Your task to perform on an android device: set default search engine in the chrome app Image 0: 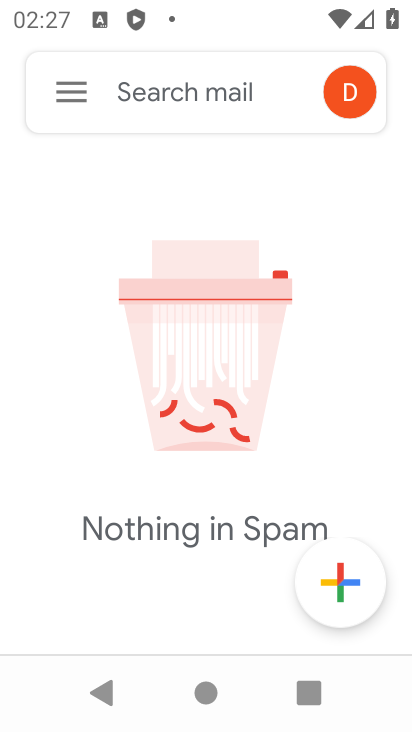
Step 0: press home button
Your task to perform on an android device: set default search engine in the chrome app Image 1: 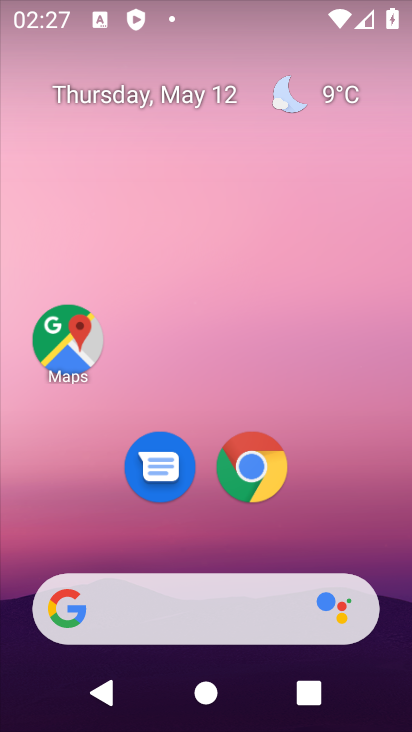
Step 1: drag from (306, 524) to (330, 181)
Your task to perform on an android device: set default search engine in the chrome app Image 2: 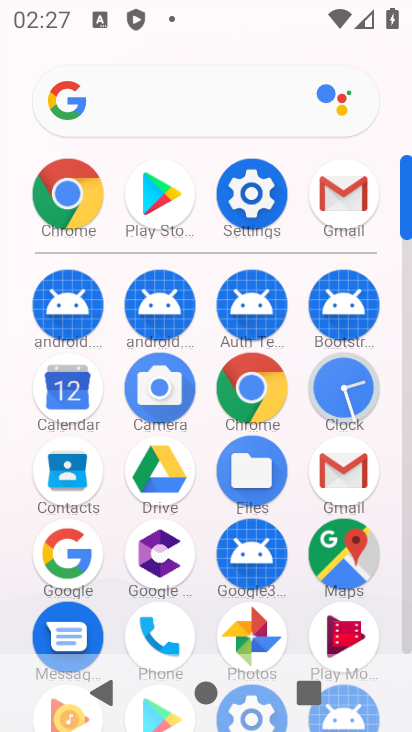
Step 2: click (69, 186)
Your task to perform on an android device: set default search engine in the chrome app Image 3: 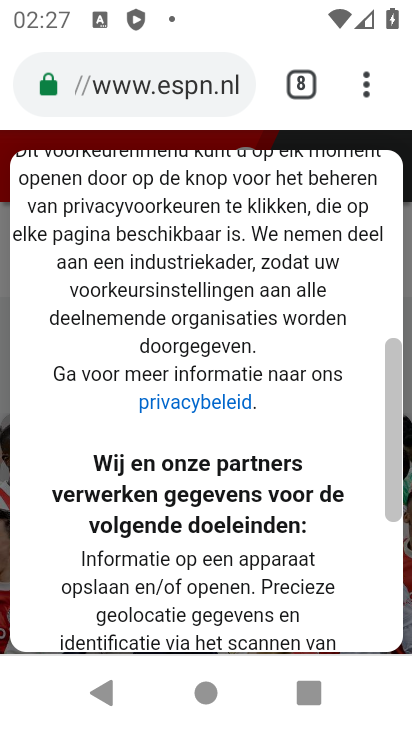
Step 3: drag from (243, 550) to (258, 330)
Your task to perform on an android device: set default search engine in the chrome app Image 4: 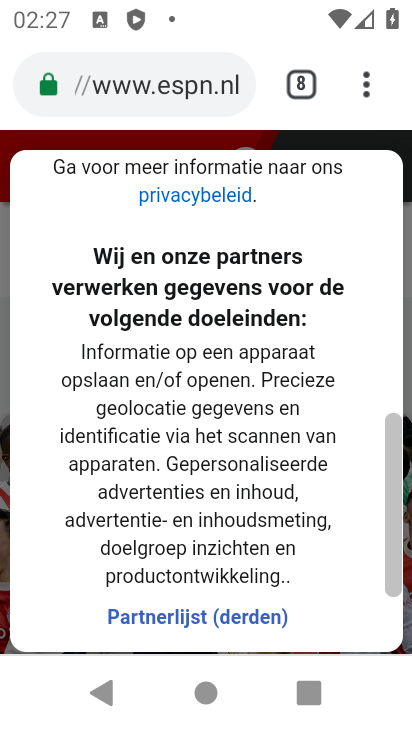
Step 4: click (343, 73)
Your task to perform on an android device: set default search engine in the chrome app Image 5: 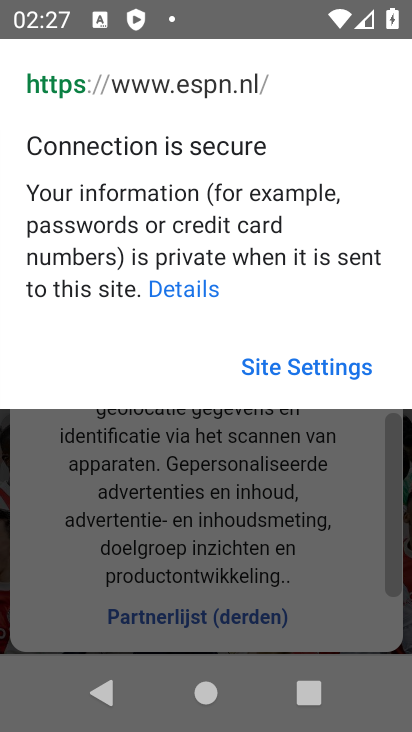
Step 5: press back button
Your task to perform on an android device: set default search engine in the chrome app Image 6: 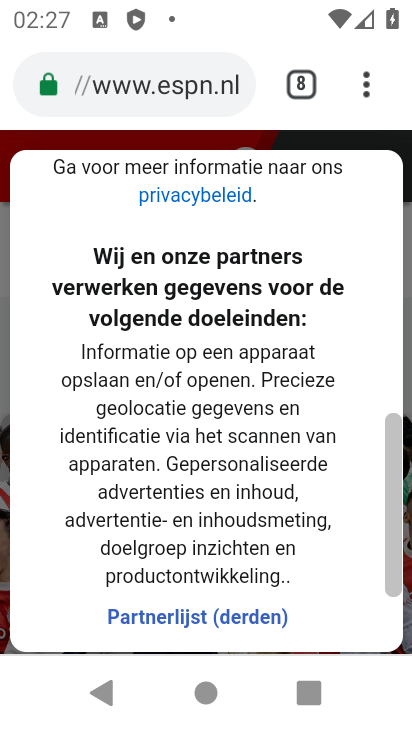
Step 6: click (353, 86)
Your task to perform on an android device: set default search engine in the chrome app Image 7: 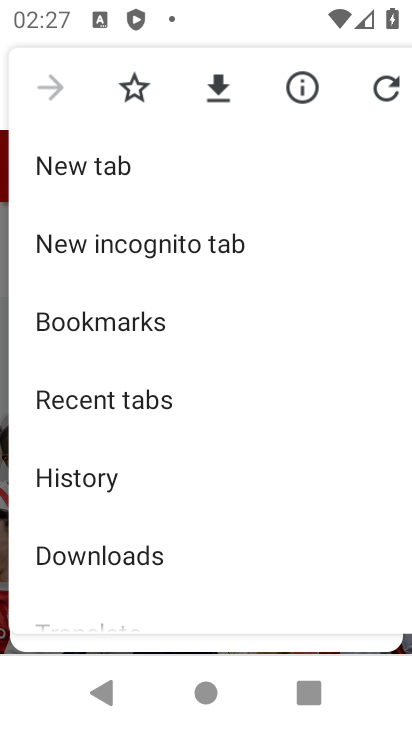
Step 7: drag from (221, 528) to (241, 345)
Your task to perform on an android device: set default search engine in the chrome app Image 8: 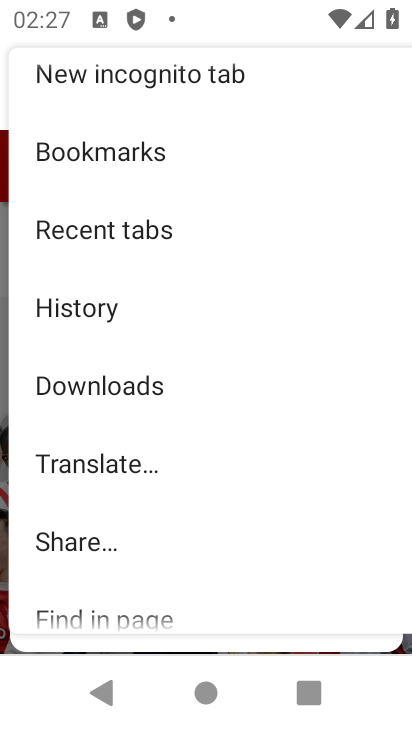
Step 8: drag from (146, 576) to (204, 194)
Your task to perform on an android device: set default search engine in the chrome app Image 9: 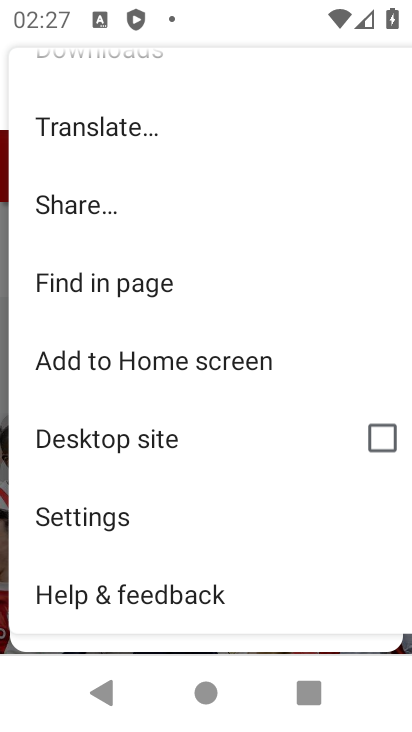
Step 9: click (70, 516)
Your task to perform on an android device: set default search engine in the chrome app Image 10: 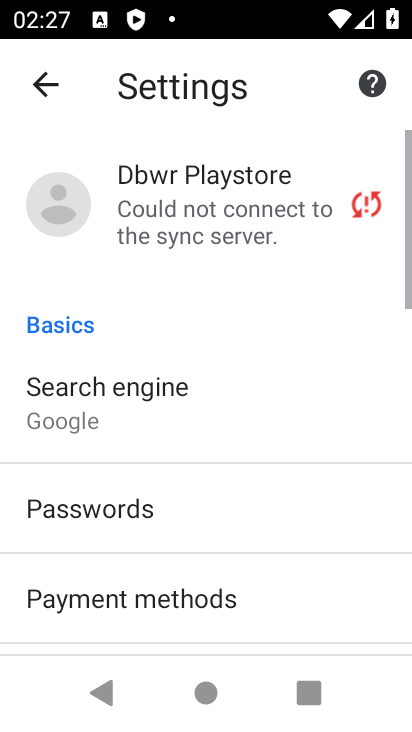
Step 10: click (117, 429)
Your task to perform on an android device: set default search engine in the chrome app Image 11: 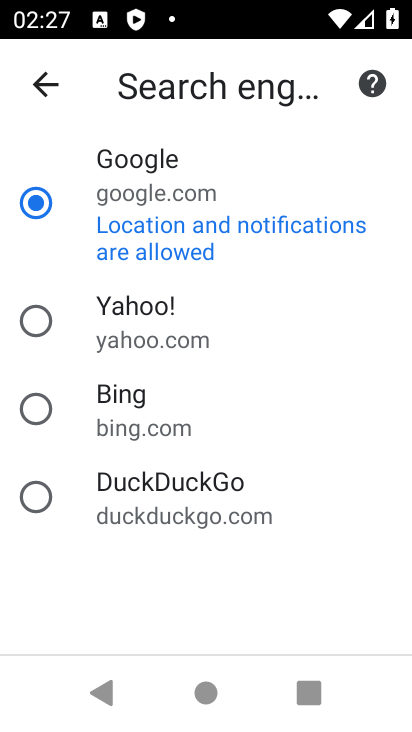
Step 11: click (110, 408)
Your task to perform on an android device: set default search engine in the chrome app Image 12: 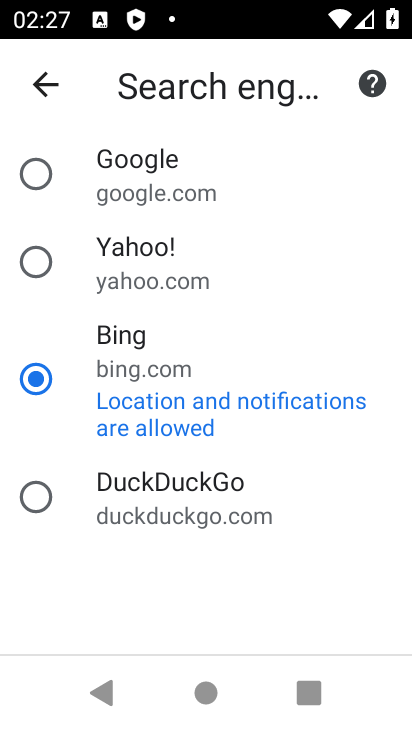
Step 12: task complete